Your task to perform on an android device: toggle priority inbox in the gmail app Image 0: 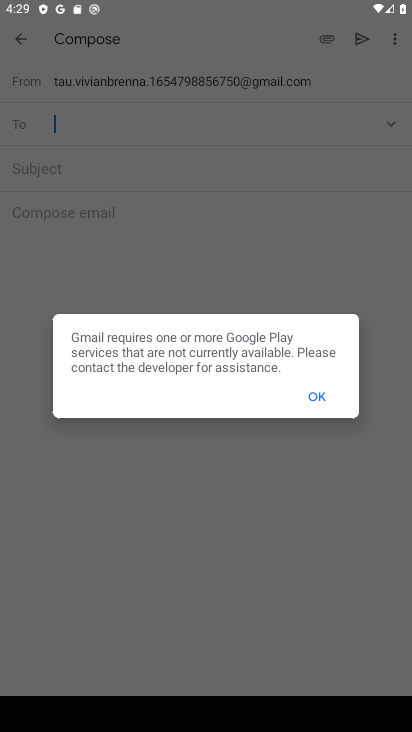
Step 0: press home button
Your task to perform on an android device: toggle priority inbox in the gmail app Image 1: 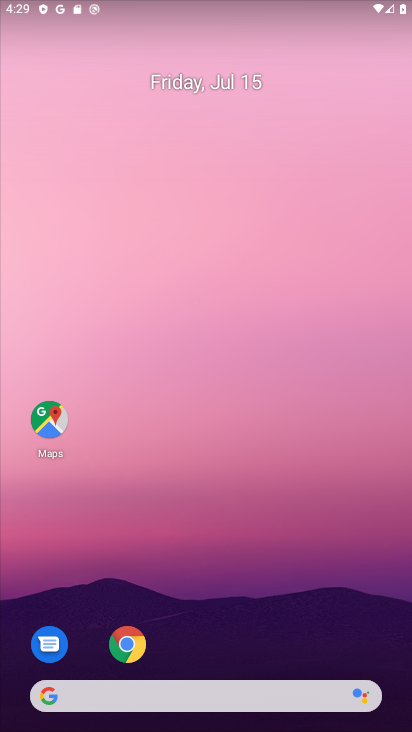
Step 1: drag from (201, 623) to (215, 407)
Your task to perform on an android device: toggle priority inbox in the gmail app Image 2: 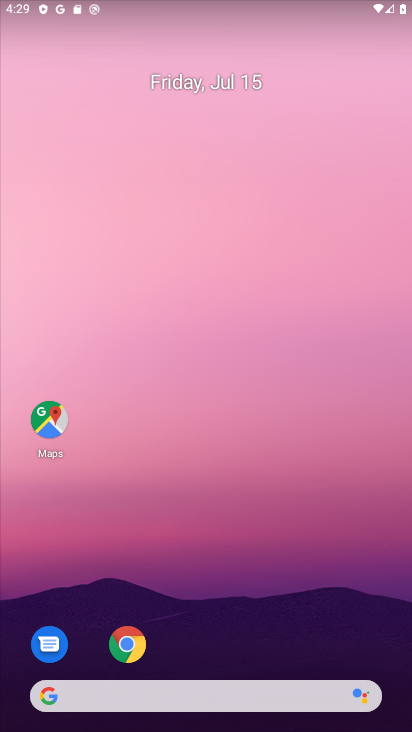
Step 2: drag from (206, 577) to (198, 238)
Your task to perform on an android device: toggle priority inbox in the gmail app Image 3: 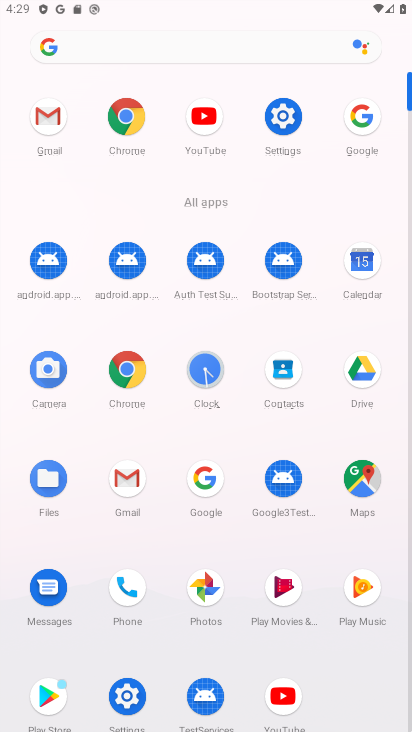
Step 3: click (139, 489)
Your task to perform on an android device: toggle priority inbox in the gmail app Image 4: 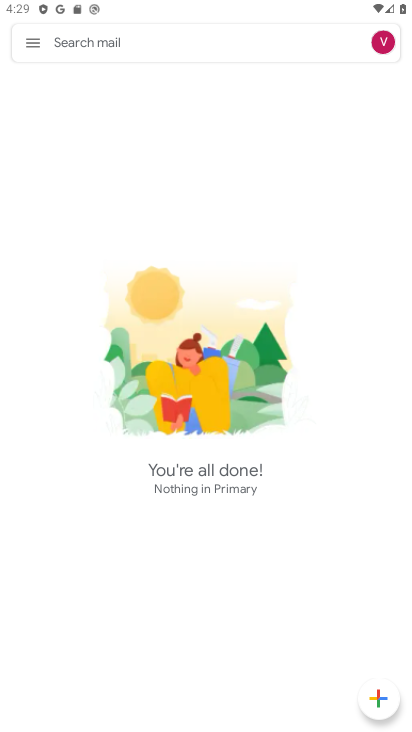
Step 4: click (26, 42)
Your task to perform on an android device: toggle priority inbox in the gmail app Image 5: 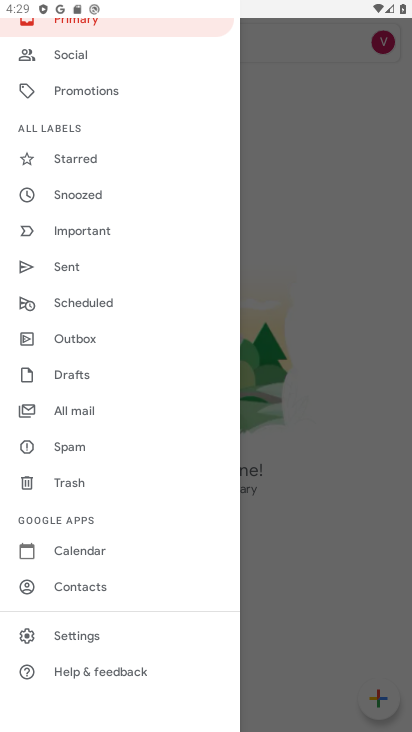
Step 5: click (93, 632)
Your task to perform on an android device: toggle priority inbox in the gmail app Image 6: 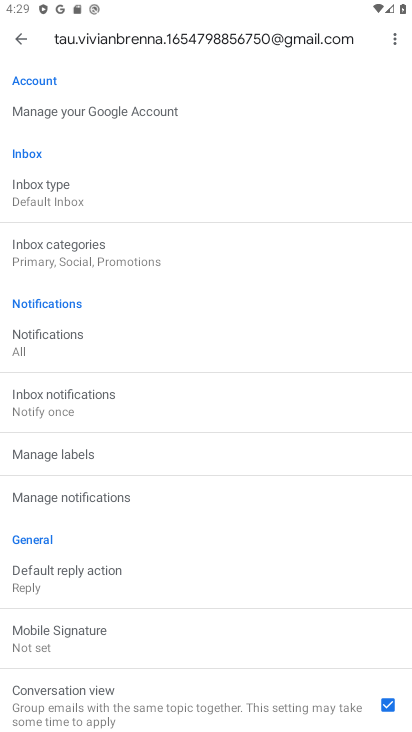
Step 6: click (73, 203)
Your task to perform on an android device: toggle priority inbox in the gmail app Image 7: 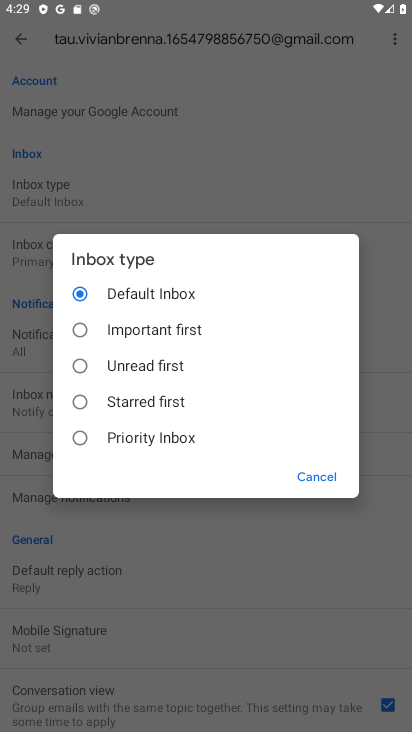
Step 7: click (71, 330)
Your task to perform on an android device: toggle priority inbox in the gmail app Image 8: 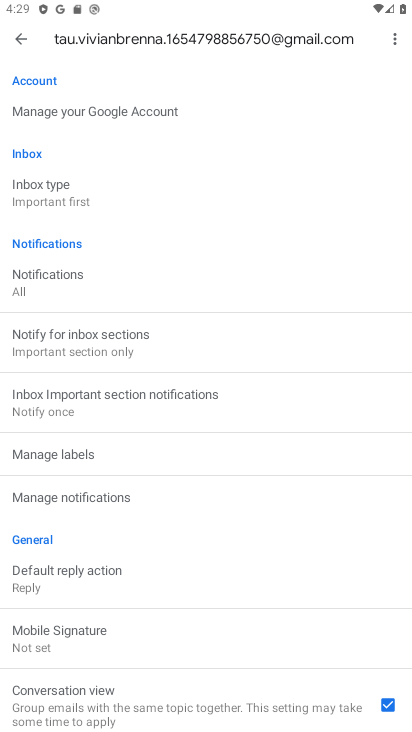
Step 8: task complete